Your task to perform on an android device: change the clock display to digital Image 0: 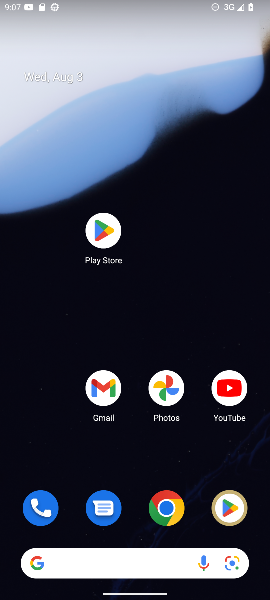
Step 0: drag from (135, 533) to (124, 29)
Your task to perform on an android device: change the clock display to digital Image 1: 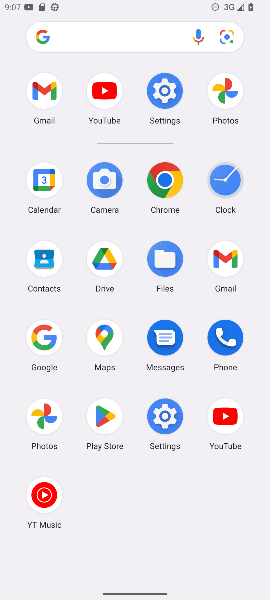
Step 1: click (223, 183)
Your task to perform on an android device: change the clock display to digital Image 2: 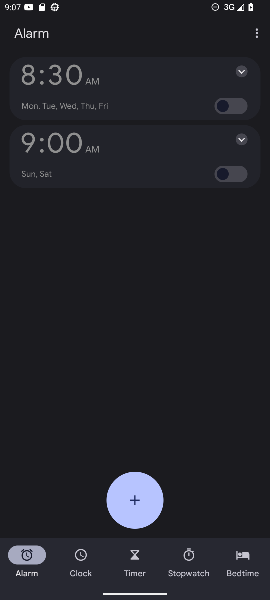
Step 2: click (257, 35)
Your task to perform on an android device: change the clock display to digital Image 3: 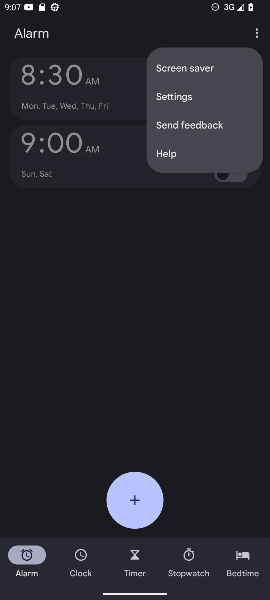
Step 3: click (188, 87)
Your task to perform on an android device: change the clock display to digital Image 4: 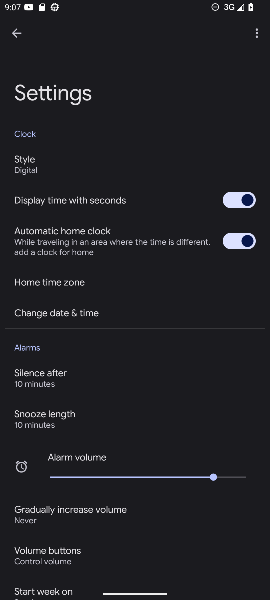
Step 4: task complete